Your task to perform on an android device: Is it going to rain this weekend? Image 0: 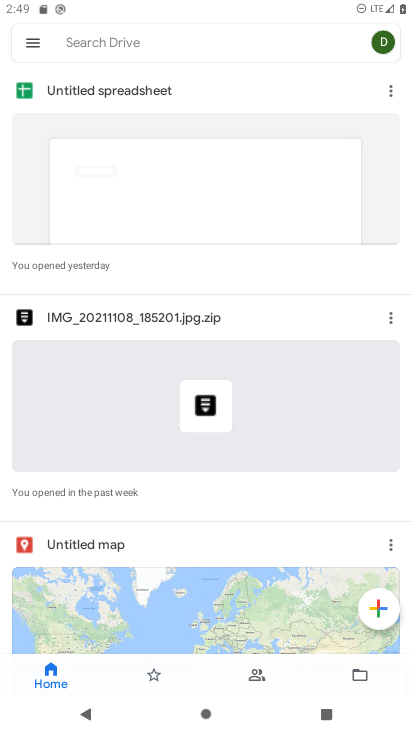
Step 0: press home button
Your task to perform on an android device: Is it going to rain this weekend? Image 1: 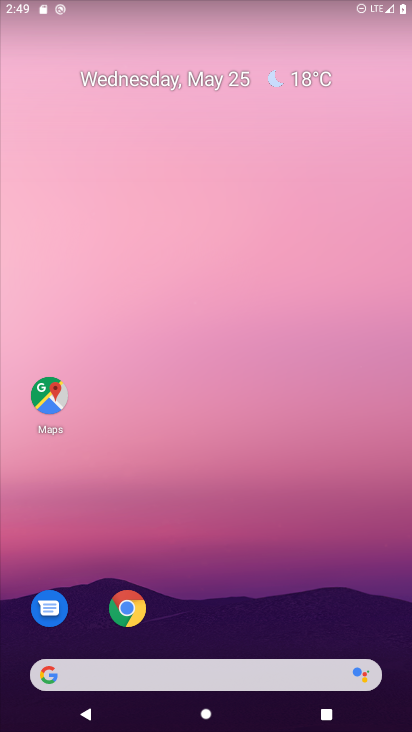
Step 1: click (298, 75)
Your task to perform on an android device: Is it going to rain this weekend? Image 2: 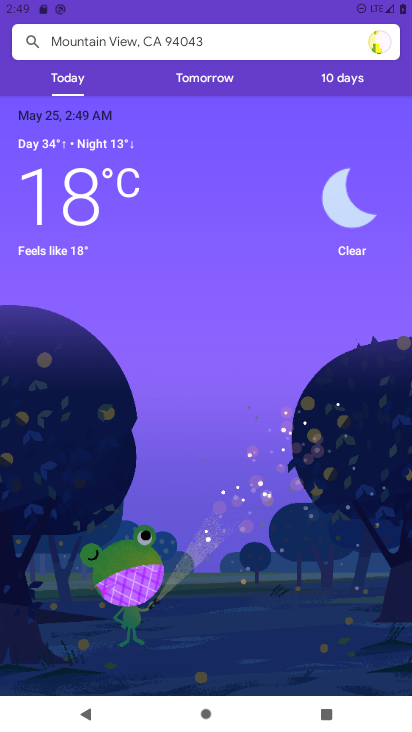
Step 2: click (337, 77)
Your task to perform on an android device: Is it going to rain this weekend? Image 3: 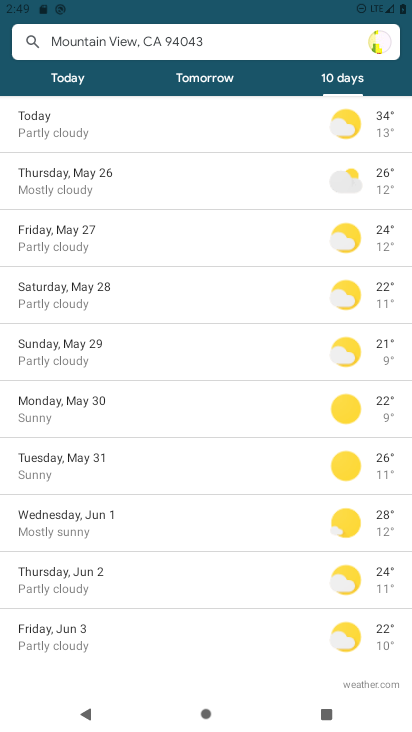
Step 3: task complete